Your task to perform on an android device: Show me popular games on the Play Store Image 0: 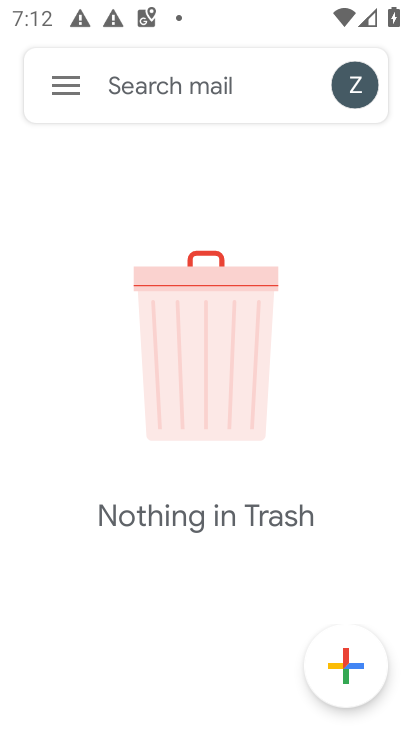
Step 0: press home button
Your task to perform on an android device: Show me popular games on the Play Store Image 1: 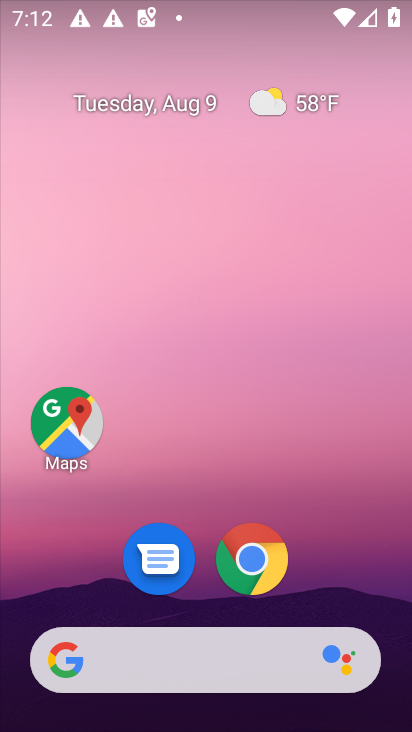
Step 1: drag from (188, 566) to (191, 57)
Your task to perform on an android device: Show me popular games on the Play Store Image 2: 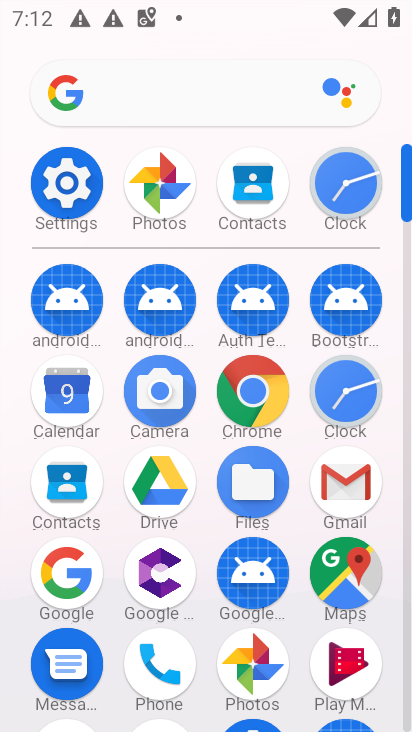
Step 2: drag from (299, 579) to (274, 230)
Your task to perform on an android device: Show me popular games on the Play Store Image 3: 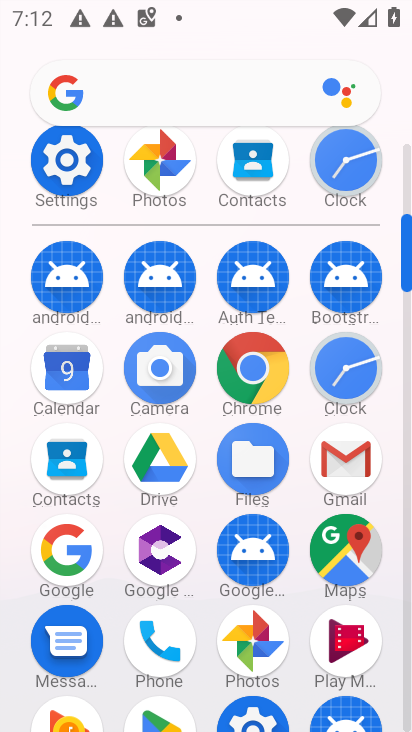
Step 3: drag from (208, 579) to (201, 298)
Your task to perform on an android device: Show me popular games on the Play Store Image 4: 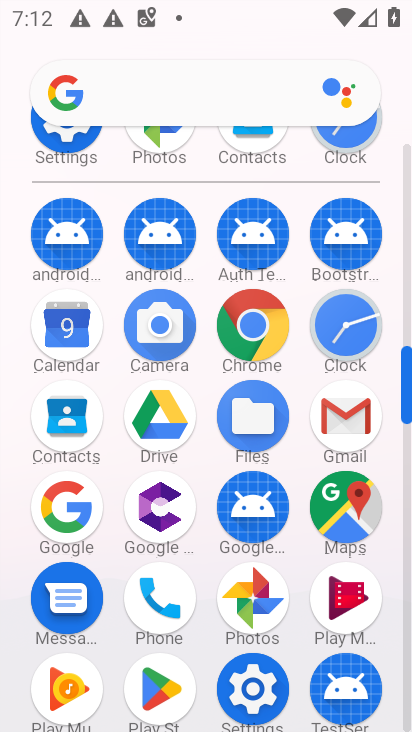
Step 4: click (159, 675)
Your task to perform on an android device: Show me popular games on the Play Store Image 5: 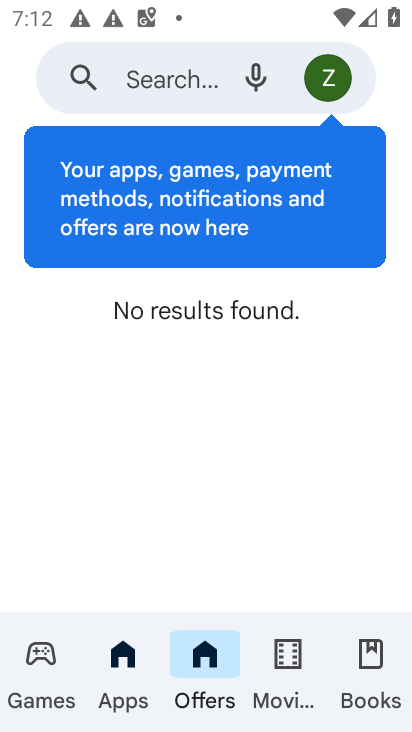
Step 5: click (49, 677)
Your task to perform on an android device: Show me popular games on the Play Store Image 6: 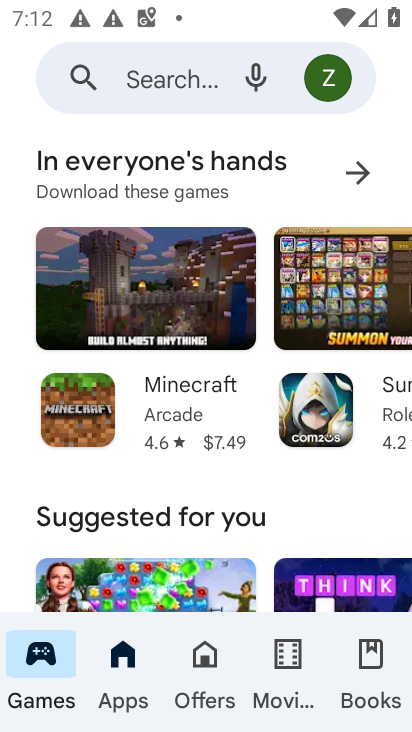
Step 6: task complete